Your task to perform on an android device: What's on my calendar tomorrow? Image 0: 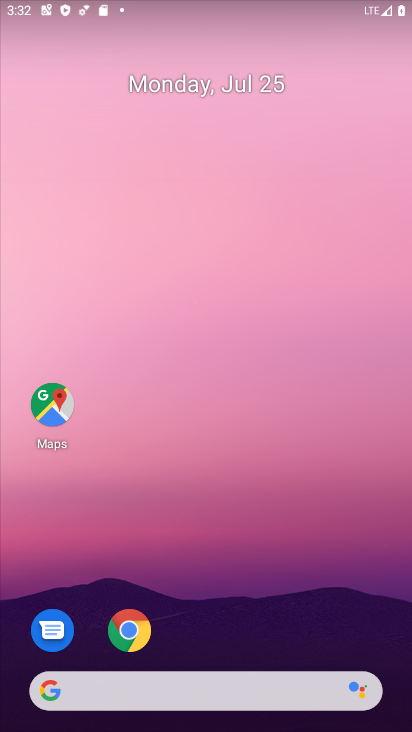
Step 0: drag from (226, 573) to (220, 3)
Your task to perform on an android device: What's on my calendar tomorrow? Image 1: 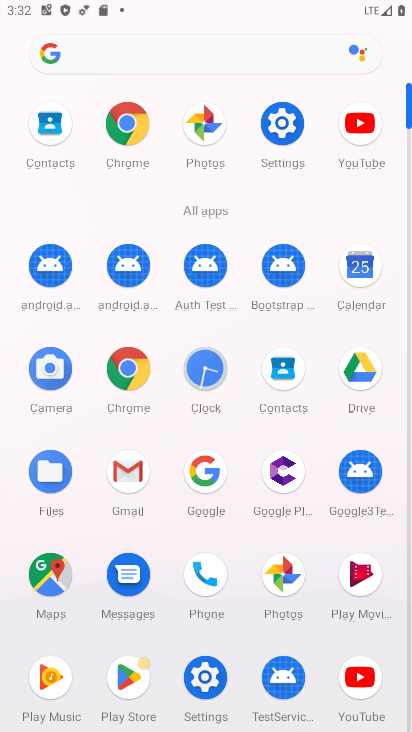
Step 1: click (369, 280)
Your task to perform on an android device: What's on my calendar tomorrow? Image 2: 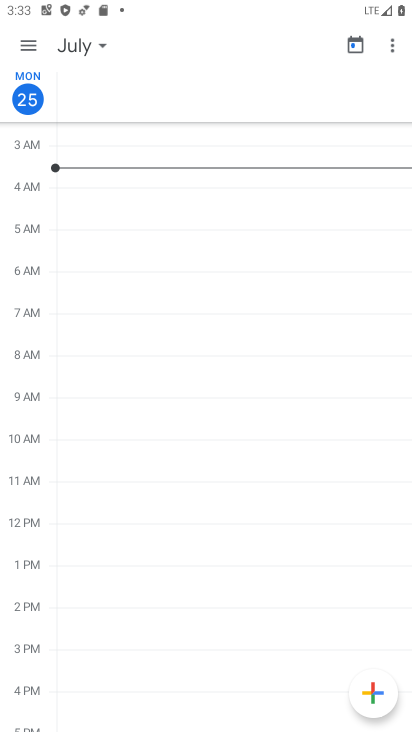
Step 2: click (31, 50)
Your task to perform on an android device: What's on my calendar tomorrow? Image 3: 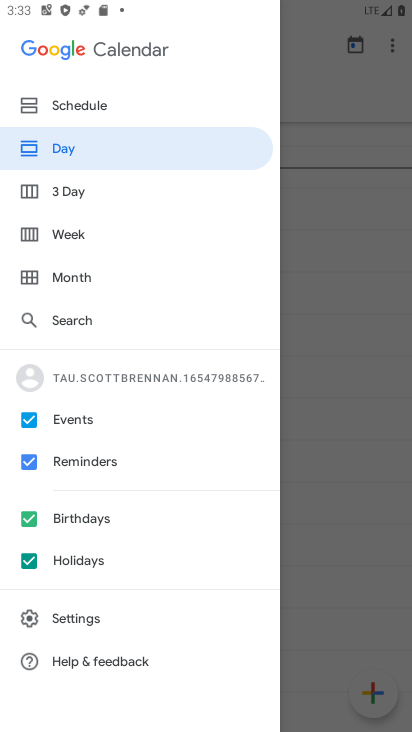
Step 3: click (81, 188)
Your task to perform on an android device: What's on my calendar tomorrow? Image 4: 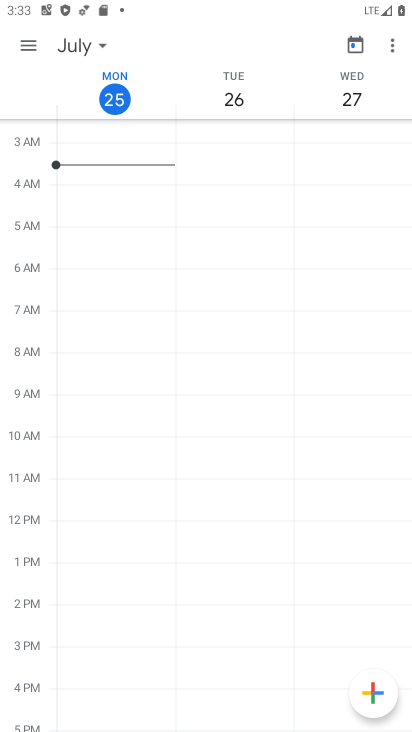
Step 4: task complete